Your task to perform on an android device: all mails in gmail Image 0: 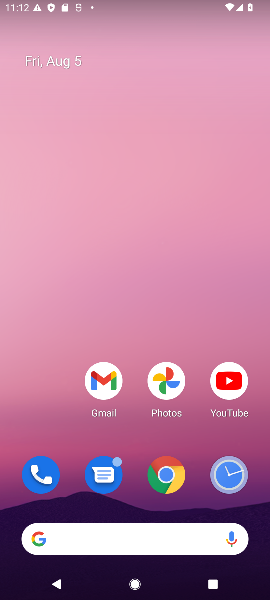
Step 0: click (108, 390)
Your task to perform on an android device: all mails in gmail Image 1: 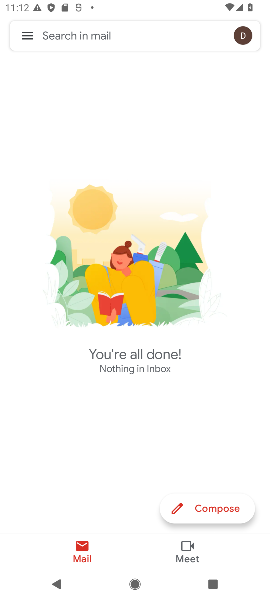
Step 1: click (29, 24)
Your task to perform on an android device: all mails in gmail Image 2: 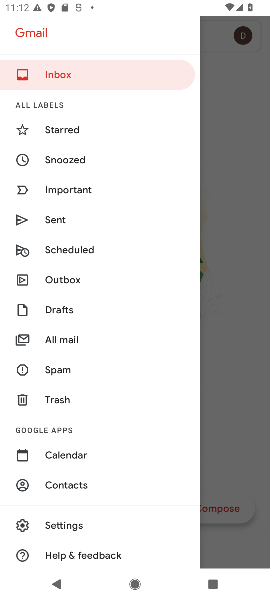
Step 2: click (72, 341)
Your task to perform on an android device: all mails in gmail Image 3: 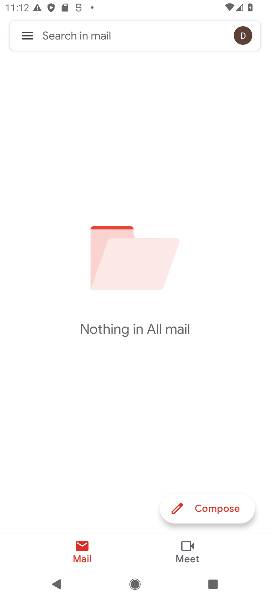
Step 3: task complete